Your task to perform on an android device: Go to wifi settings Image 0: 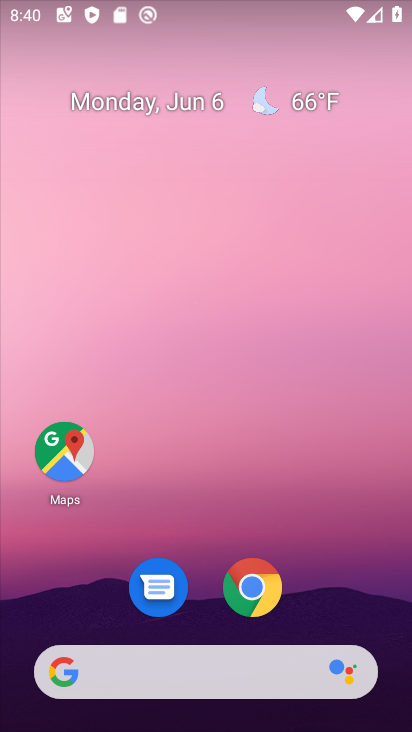
Step 0: drag from (191, 659) to (210, 138)
Your task to perform on an android device: Go to wifi settings Image 1: 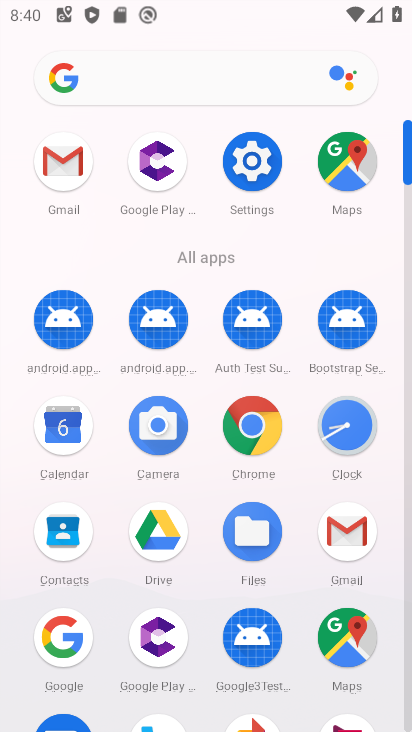
Step 1: click (259, 178)
Your task to perform on an android device: Go to wifi settings Image 2: 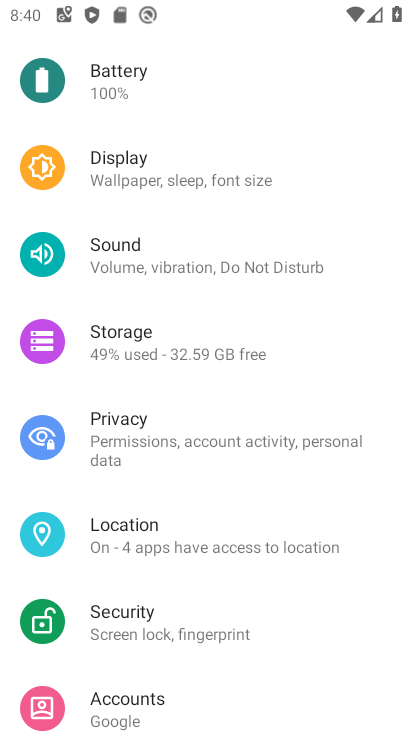
Step 2: drag from (169, 110) to (160, 612)
Your task to perform on an android device: Go to wifi settings Image 3: 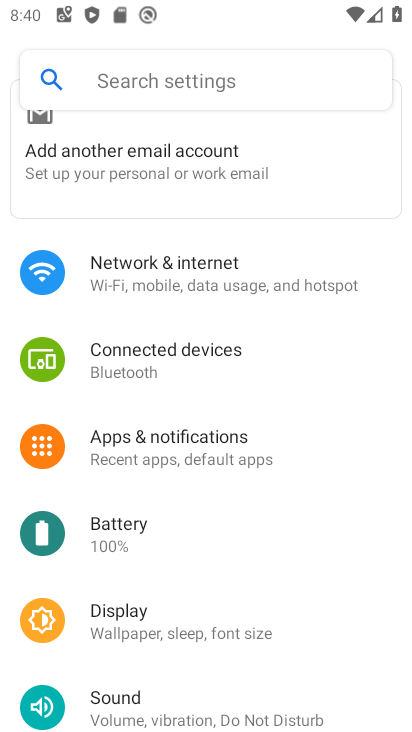
Step 3: click (168, 266)
Your task to perform on an android device: Go to wifi settings Image 4: 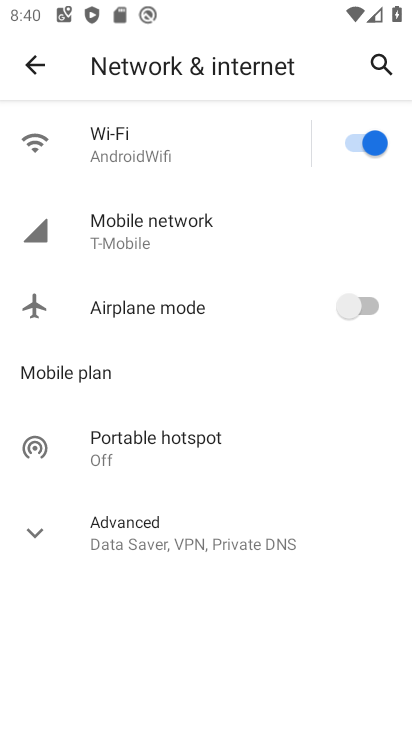
Step 4: click (130, 155)
Your task to perform on an android device: Go to wifi settings Image 5: 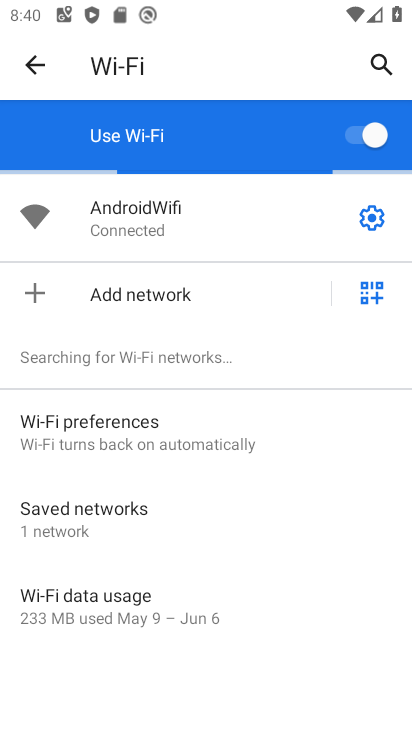
Step 5: task complete